Your task to perform on an android device: Go to Yahoo.com Image 0: 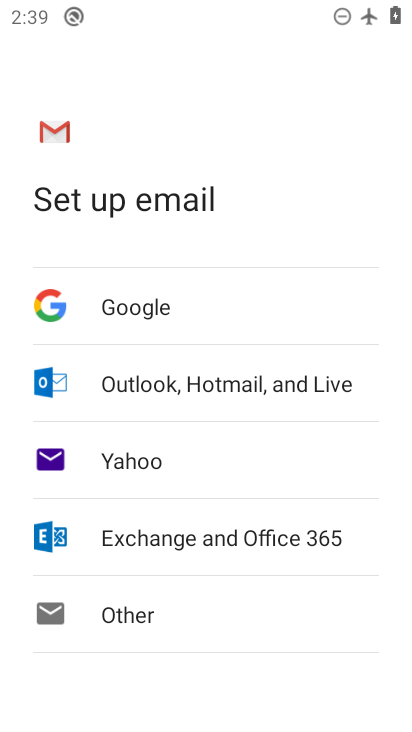
Step 0: press back button
Your task to perform on an android device: Go to Yahoo.com Image 1: 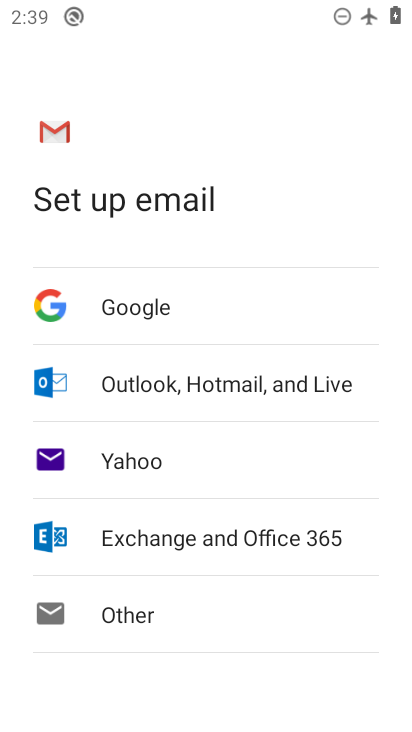
Step 1: press back button
Your task to perform on an android device: Go to Yahoo.com Image 2: 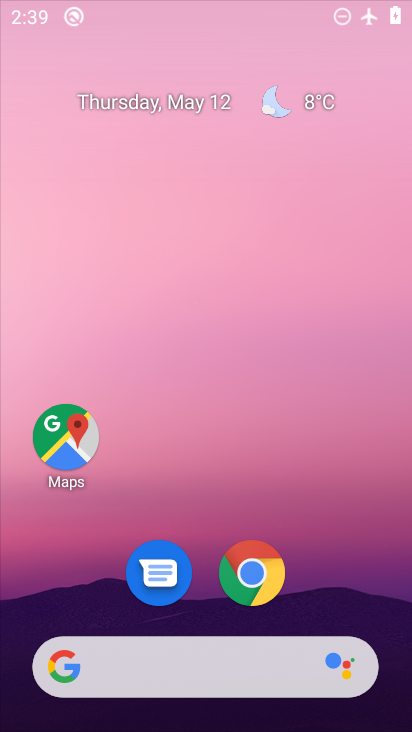
Step 2: press home button
Your task to perform on an android device: Go to Yahoo.com Image 3: 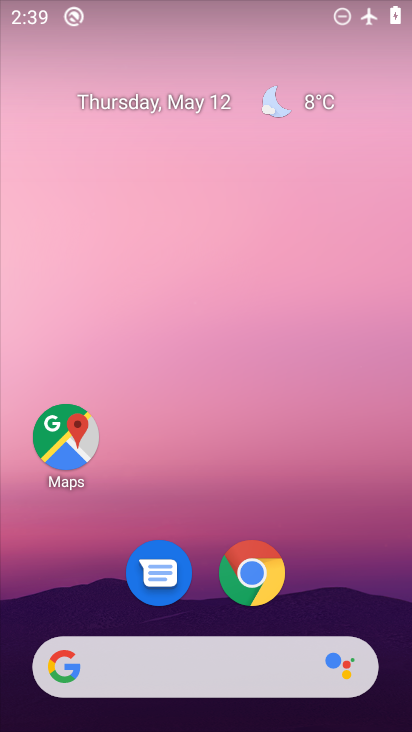
Step 3: drag from (361, 588) to (164, 54)
Your task to perform on an android device: Go to Yahoo.com Image 4: 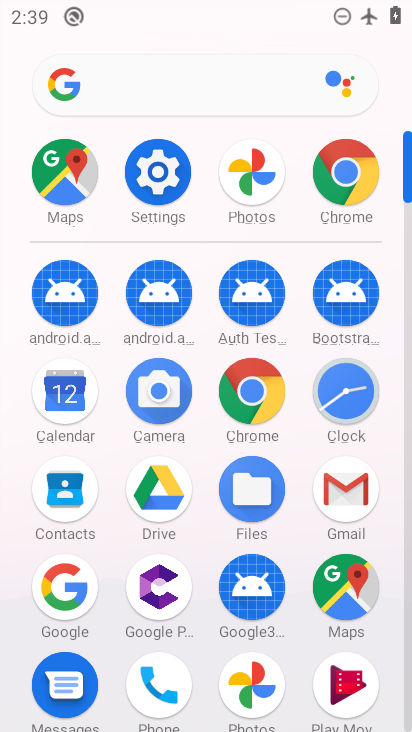
Step 4: click (339, 185)
Your task to perform on an android device: Go to Yahoo.com Image 5: 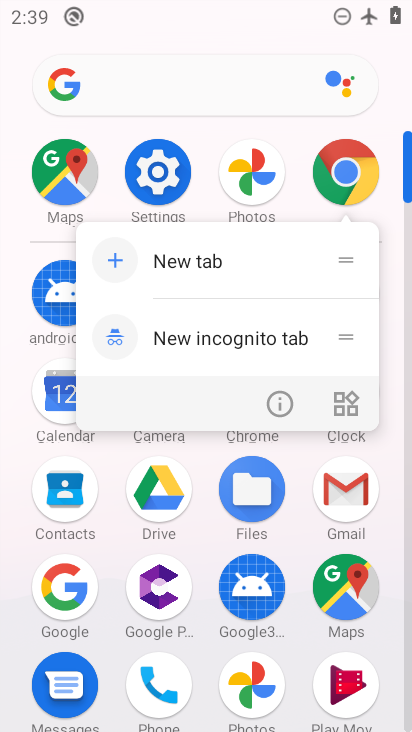
Step 5: click (341, 171)
Your task to perform on an android device: Go to Yahoo.com Image 6: 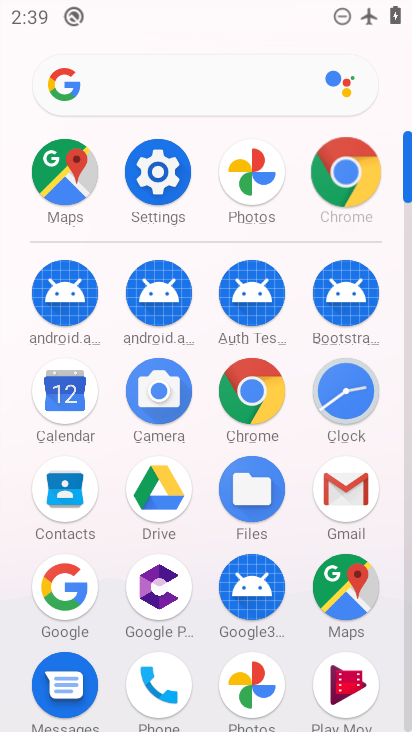
Step 6: click (339, 173)
Your task to perform on an android device: Go to Yahoo.com Image 7: 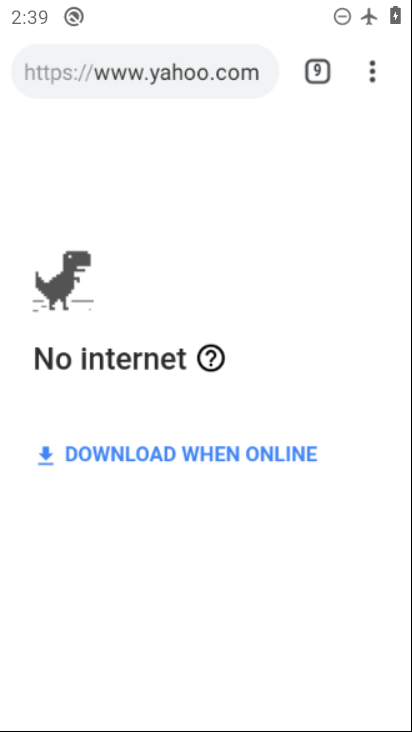
Step 7: click (339, 172)
Your task to perform on an android device: Go to Yahoo.com Image 8: 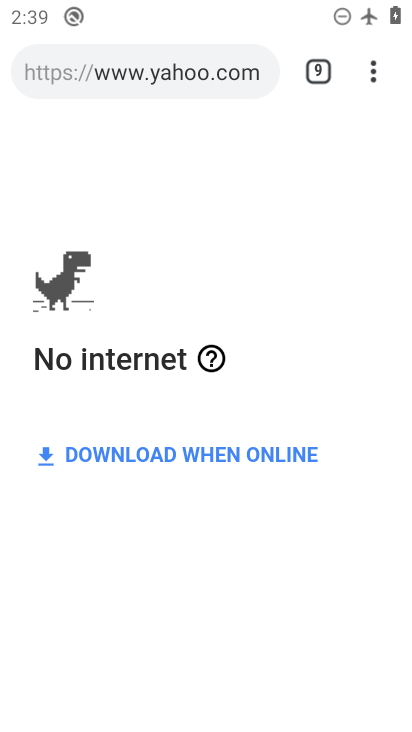
Step 8: drag from (369, 69) to (121, 136)
Your task to perform on an android device: Go to Yahoo.com Image 9: 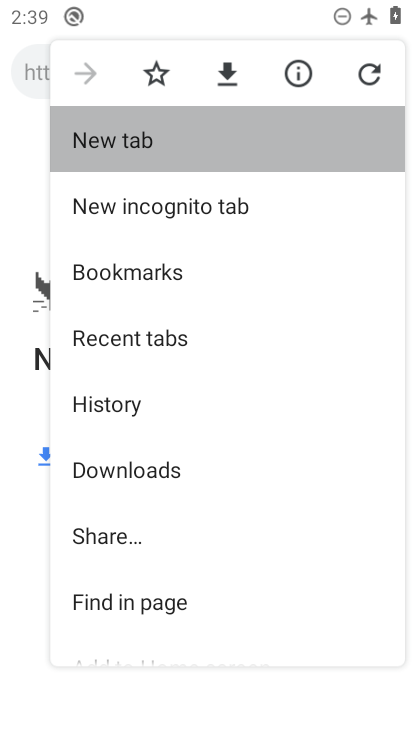
Step 9: click (118, 136)
Your task to perform on an android device: Go to Yahoo.com Image 10: 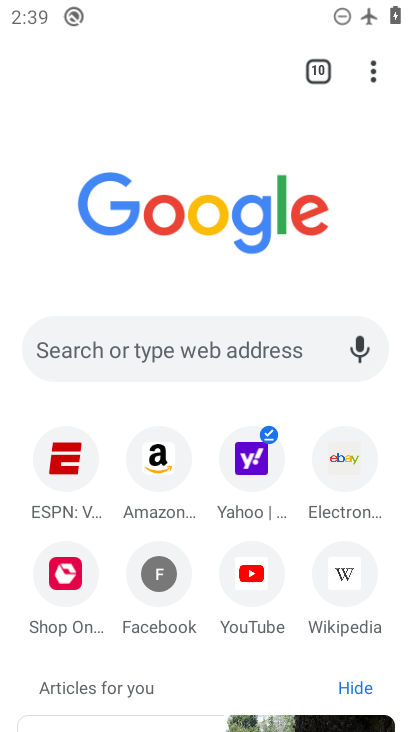
Step 10: click (259, 471)
Your task to perform on an android device: Go to Yahoo.com Image 11: 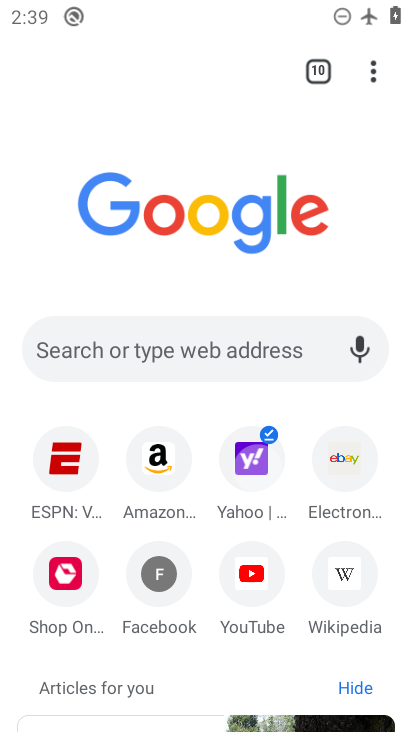
Step 11: click (259, 471)
Your task to perform on an android device: Go to Yahoo.com Image 12: 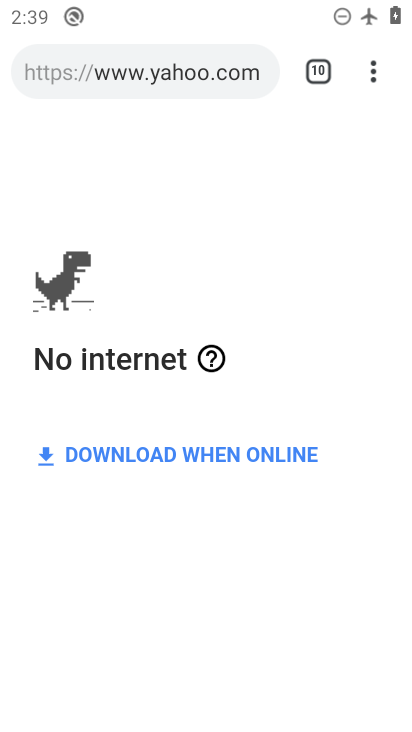
Step 12: task complete